Your task to perform on an android device: Open Maps and search for coffee Image 0: 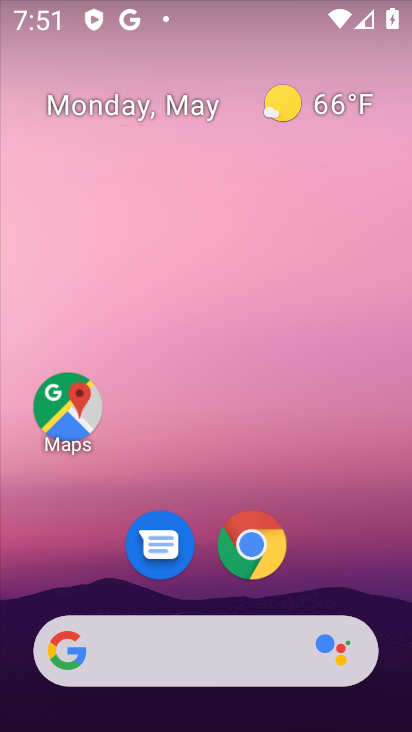
Step 0: click (80, 419)
Your task to perform on an android device: Open Maps and search for coffee Image 1: 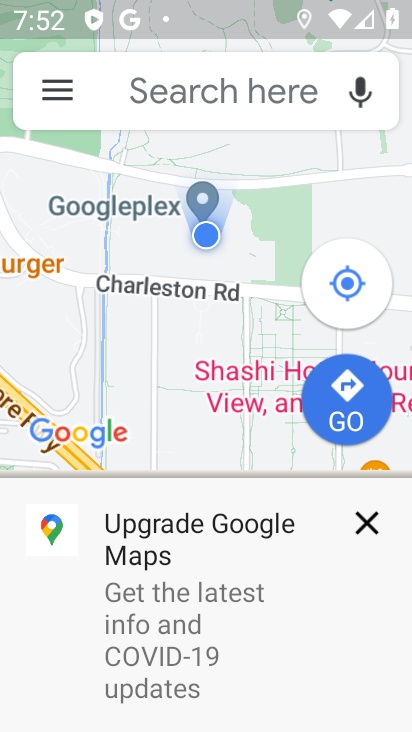
Step 1: click (203, 87)
Your task to perform on an android device: Open Maps and search for coffee Image 2: 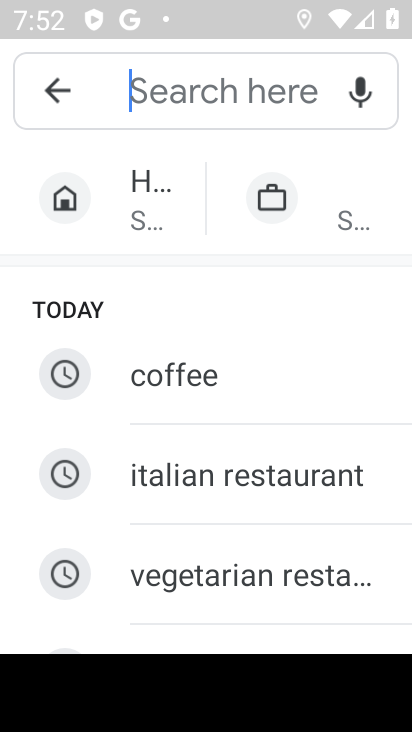
Step 2: click (190, 362)
Your task to perform on an android device: Open Maps and search for coffee Image 3: 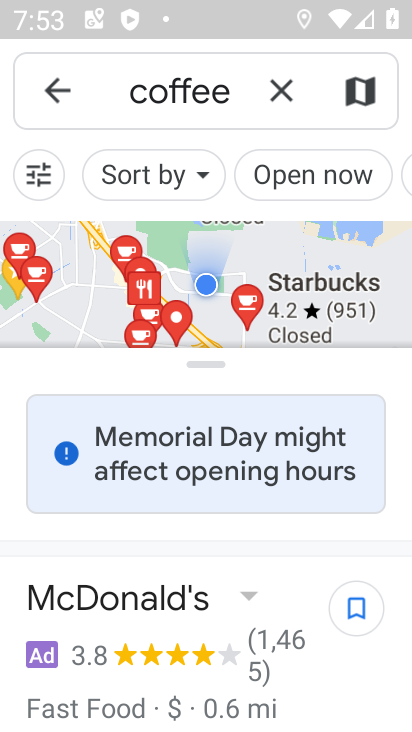
Step 3: task complete